Your task to perform on an android device: delete location history Image 0: 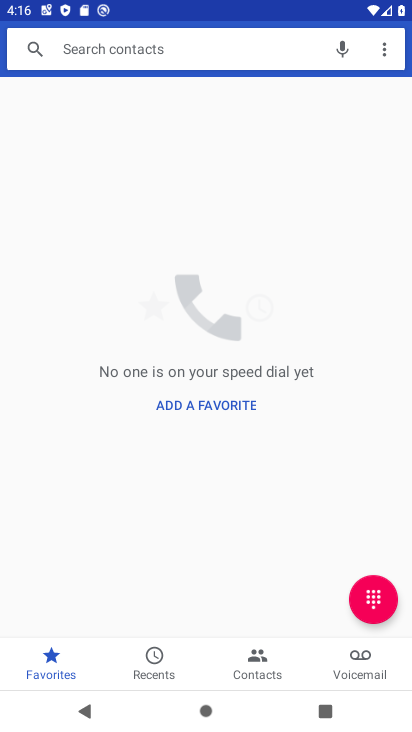
Step 0: press home button
Your task to perform on an android device: delete location history Image 1: 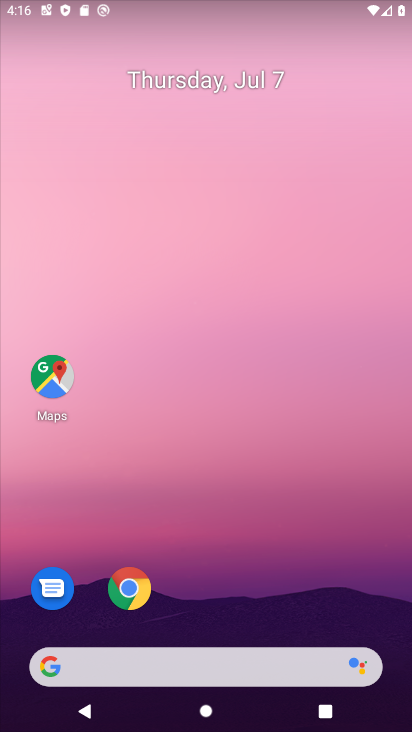
Step 1: drag from (312, 664) to (337, 94)
Your task to perform on an android device: delete location history Image 2: 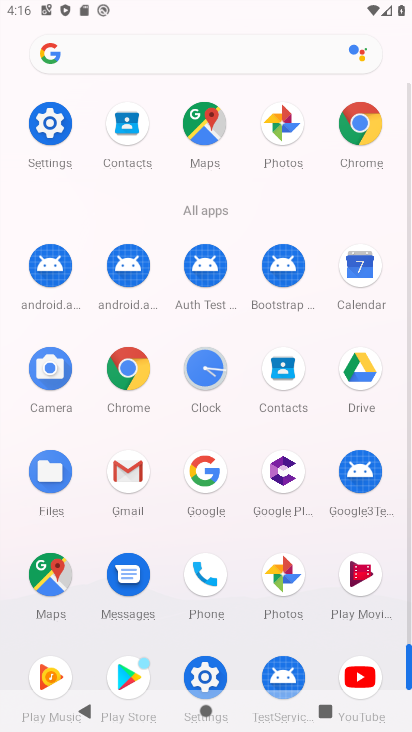
Step 2: click (50, 578)
Your task to perform on an android device: delete location history Image 3: 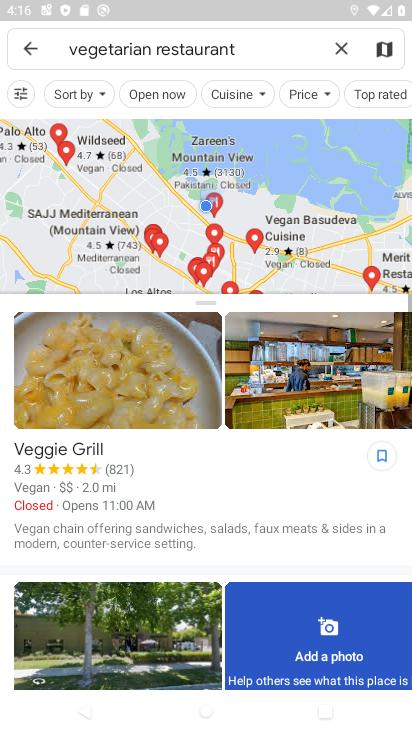
Step 3: press back button
Your task to perform on an android device: delete location history Image 4: 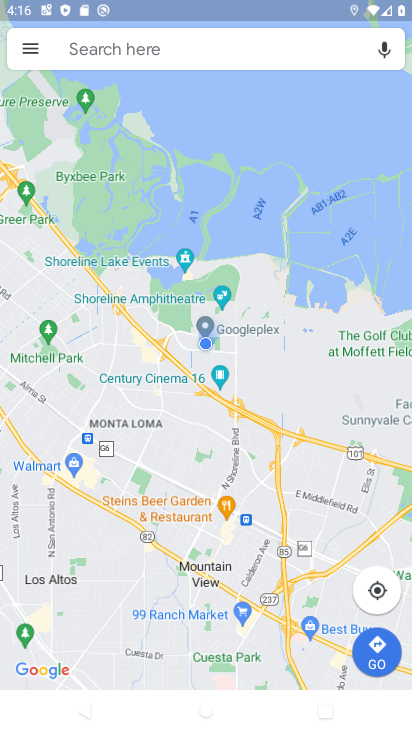
Step 4: click (32, 44)
Your task to perform on an android device: delete location history Image 5: 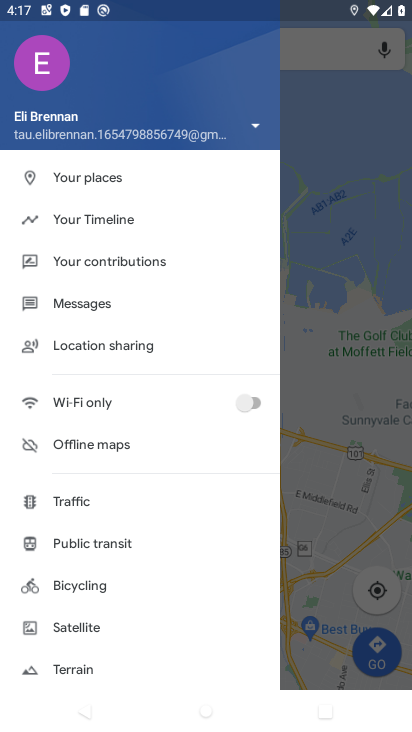
Step 5: drag from (163, 594) to (187, 164)
Your task to perform on an android device: delete location history Image 6: 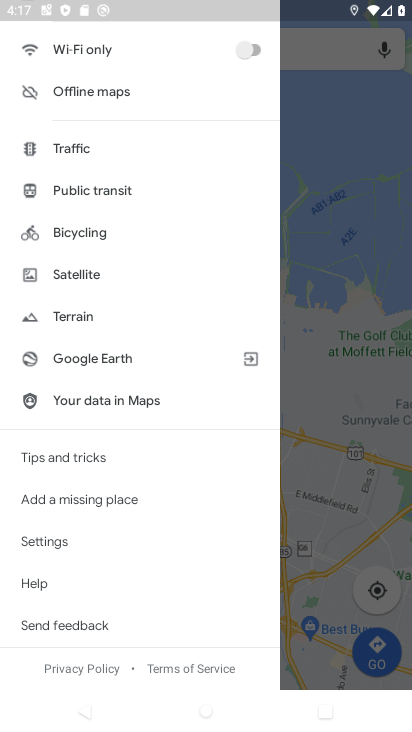
Step 6: click (341, 239)
Your task to perform on an android device: delete location history Image 7: 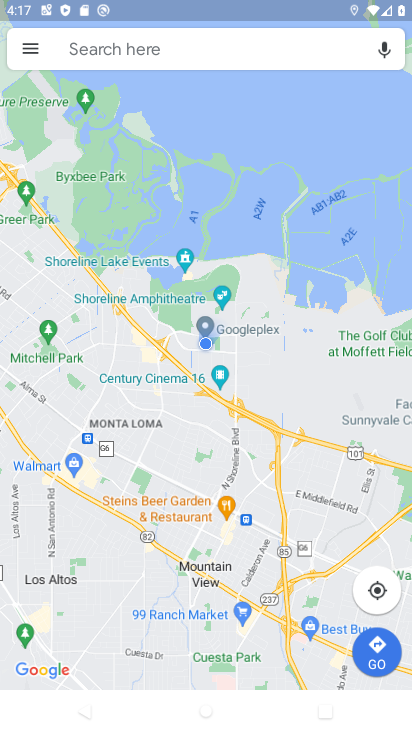
Step 7: click (37, 51)
Your task to perform on an android device: delete location history Image 8: 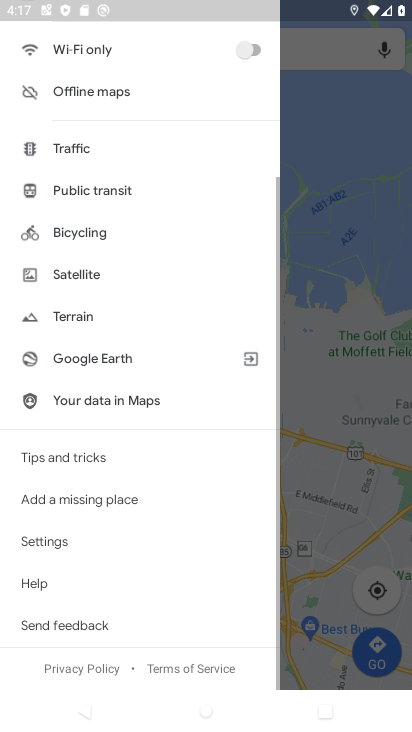
Step 8: drag from (108, 145) to (153, 720)
Your task to perform on an android device: delete location history Image 9: 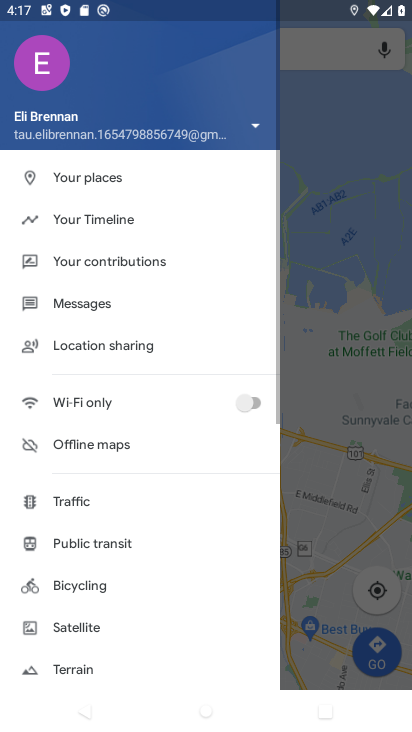
Step 9: click (121, 221)
Your task to perform on an android device: delete location history Image 10: 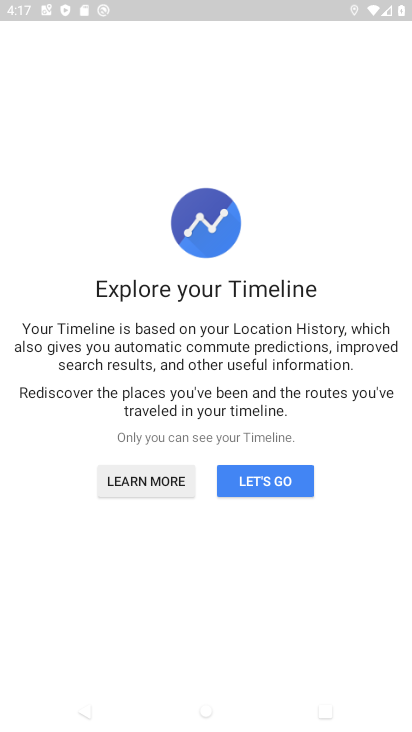
Step 10: click (263, 468)
Your task to perform on an android device: delete location history Image 11: 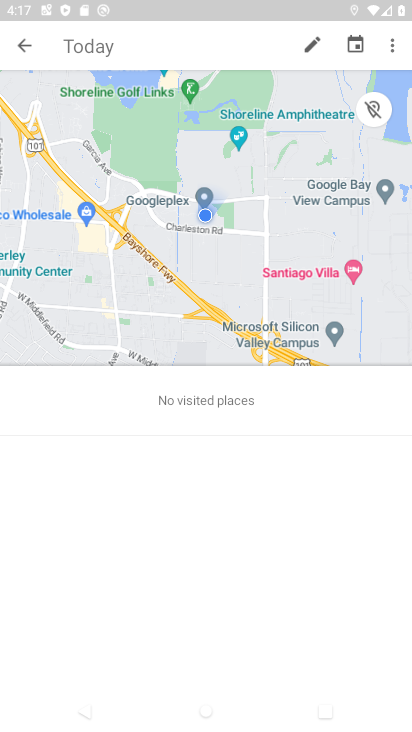
Step 11: click (387, 50)
Your task to perform on an android device: delete location history Image 12: 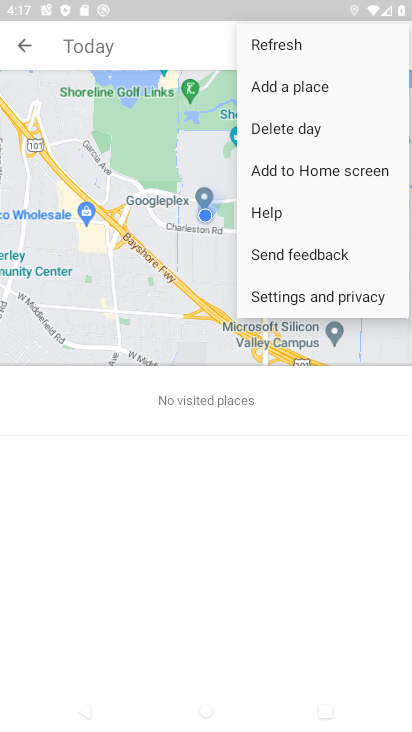
Step 12: click (312, 297)
Your task to perform on an android device: delete location history Image 13: 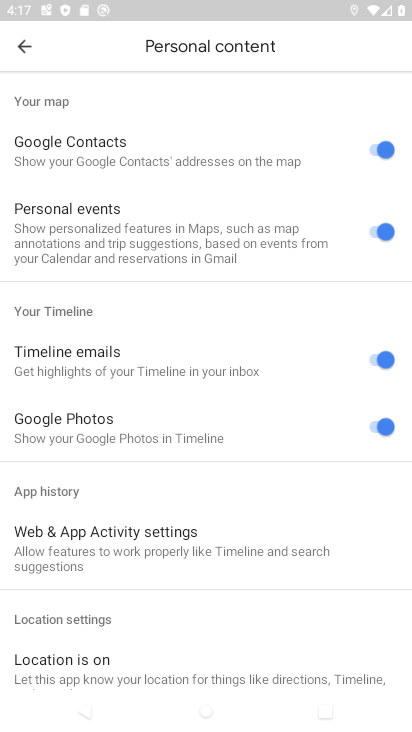
Step 13: drag from (177, 637) to (222, 162)
Your task to perform on an android device: delete location history Image 14: 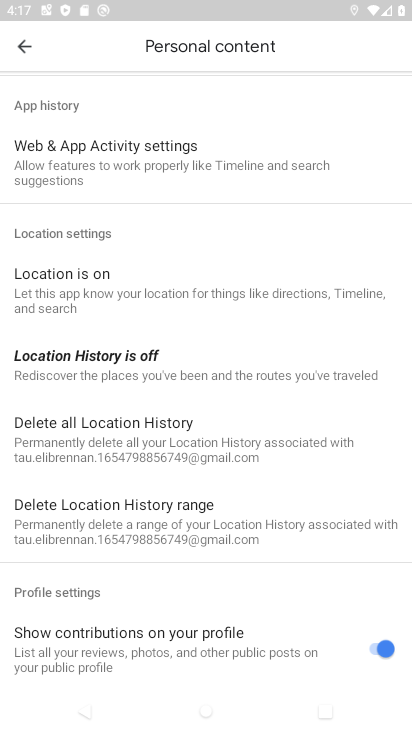
Step 14: click (160, 457)
Your task to perform on an android device: delete location history Image 15: 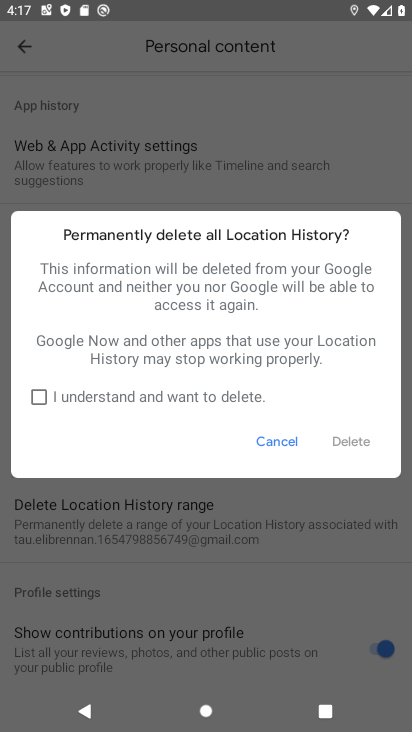
Step 15: click (34, 394)
Your task to perform on an android device: delete location history Image 16: 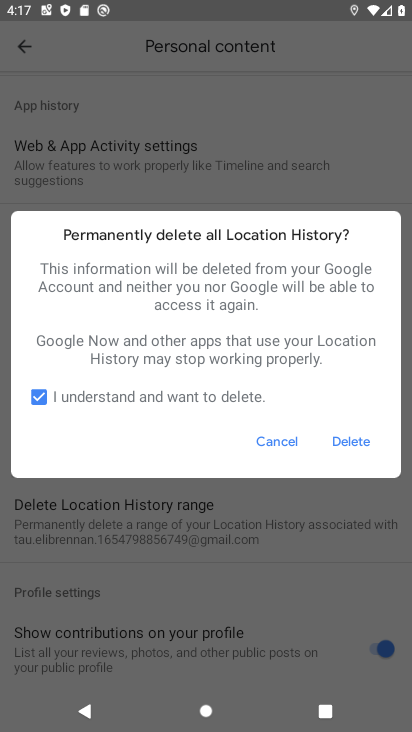
Step 16: click (355, 444)
Your task to perform on an android device: delete location history Image 17: 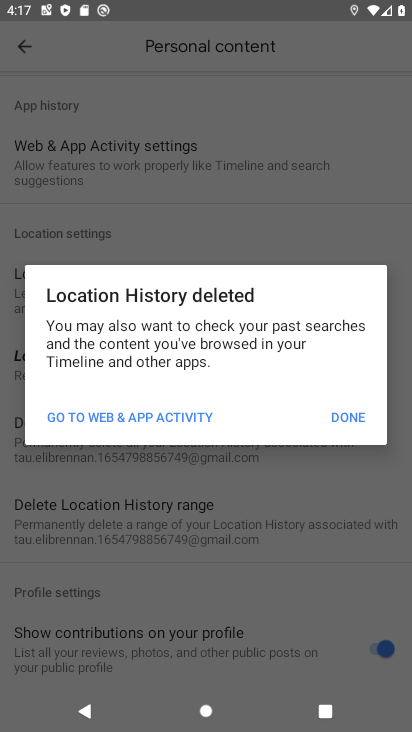
Step 17: click (359, 413)
Your task to perform on an android device: delete location history Image 18: 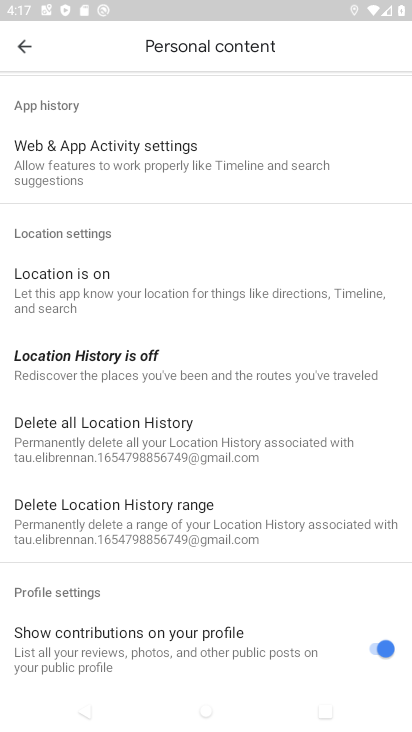
Step 18: task complete